Your task to perform on an android device: What's the weather going to be tomorrow? Image 0: 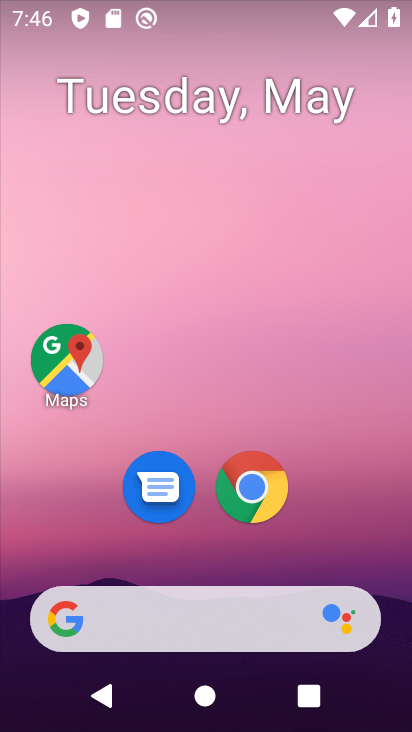
Step 0: click (218, 611)
Your task to perform on an android device: What's the weather going to be tomorrow? Image 1: 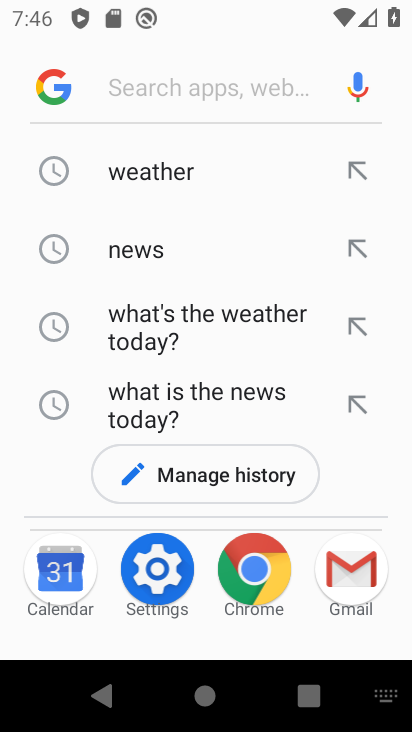
Step 1: click (169, 171)
Your task to perform on an android device: What's the weather going to be tomorrow? Image 2: 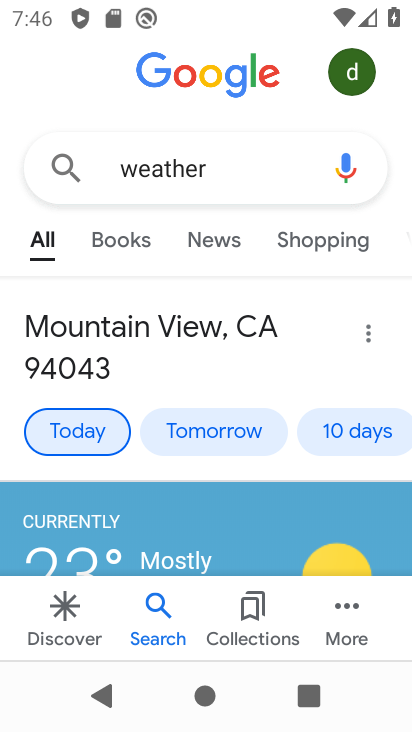
Step 2: click (221, 432)
Your task to perform on an android device: What's the weather going to be tomorrow? Image 3: 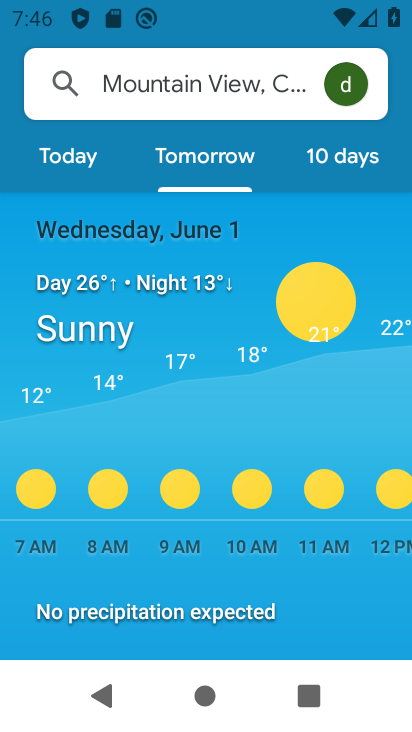
Step 3: task complete